Your task to perform on an android device: open app "Google Home" (install if not already installed) Image 0: 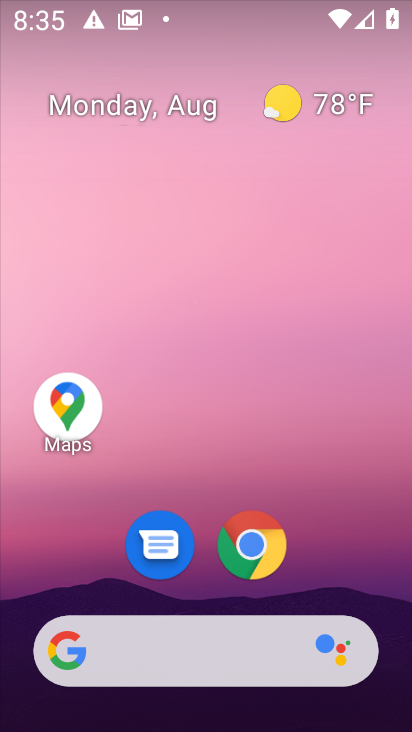
Step 0: press home button
Your task to perform on an android device: open app "Google Home" (install if not already installed) Image 1: 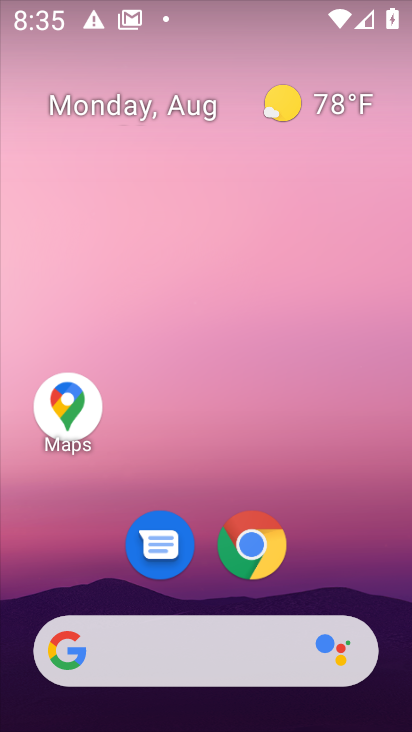
Step 1: drag from (350, 580) to (368, 156)
Your task to perform on an android device: open app "Google Home" (install if not already installed) Image 2: 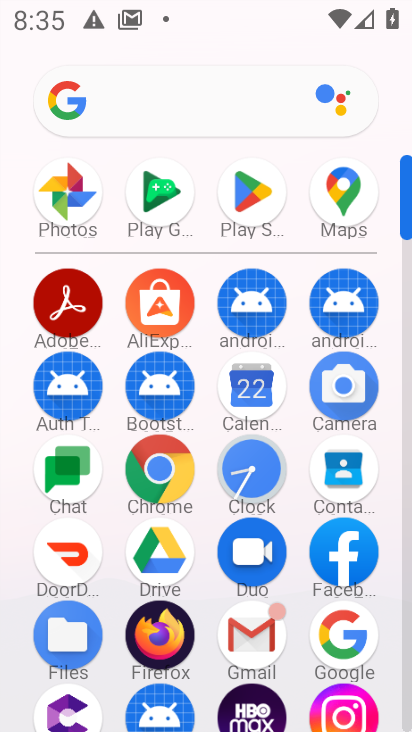
Step 2: click (258, 196)
Your task to perform on an android device: open app "Google Home" (install if not already installed) Image 3: 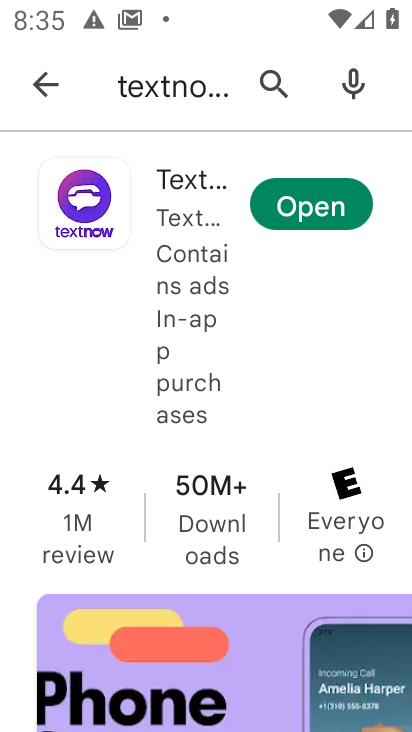
Step 3: press back button
Your task to perform on an android device: open app "Google Home" (install if not already installed) Image 4: 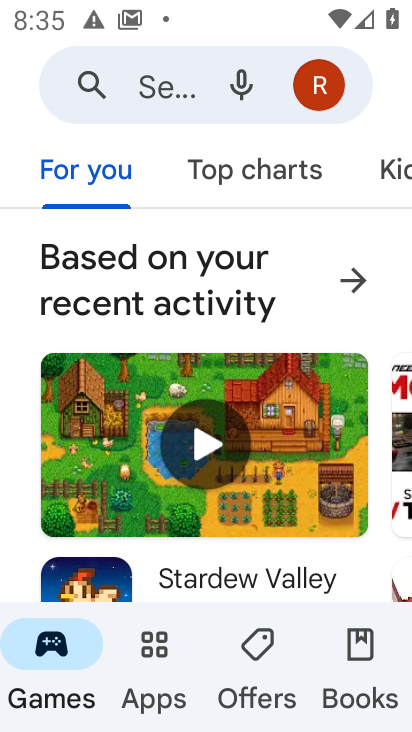
Step 4: click (158, 89)
Your task to perform on an android device: open app "Google Home" (install if not already installed) Image 5: 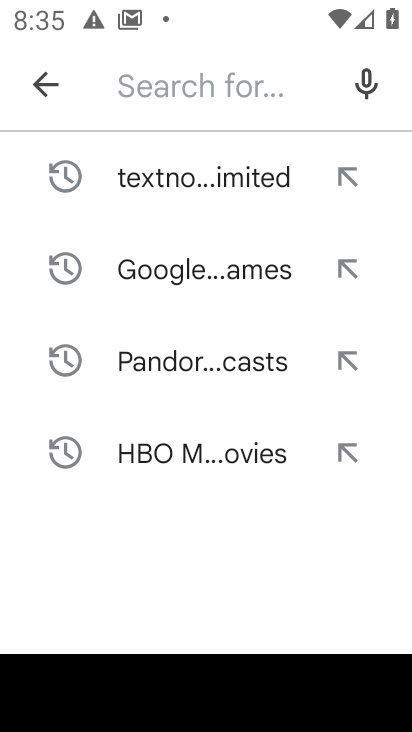
Step 5: type "Google Home"
Your task to perform on an android device: open app "Google Home" (install if not already installed) Image 6: 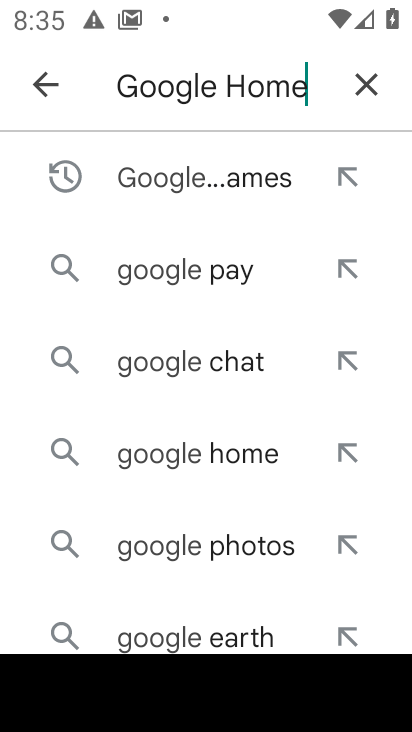
Step 6: press enter
Your task to perform on an android device: open app "Google Home" (install if not already installed) Image 7: 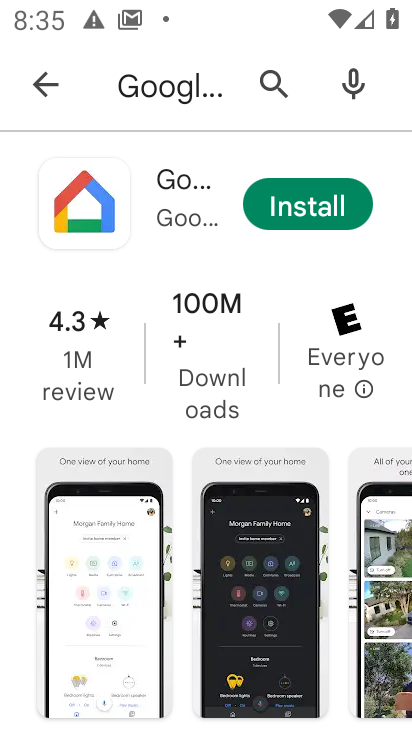
Step 7: click (310, 202)
Your task to perform on an android device: open app "Google Home" (install if not already installed) Image 8: 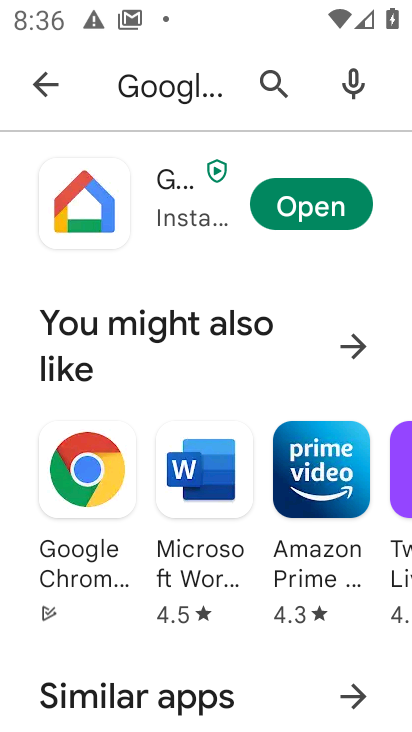
Step 8: click (336, 206)
Your task to perform on an android device: open app "Google Home" (install if not already installed) Image 9: 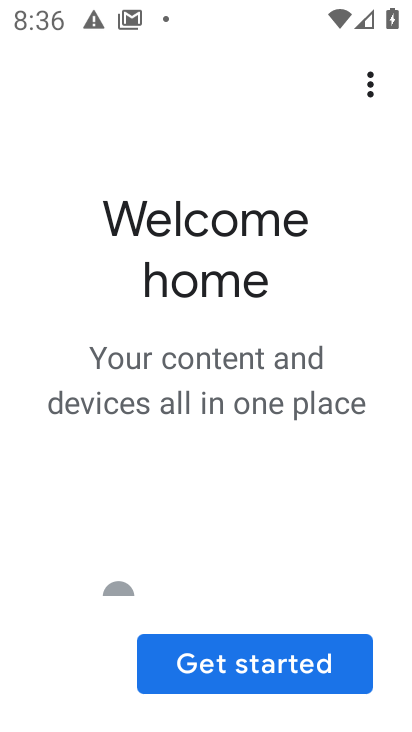
Step 9: task complete